Your task to perform on an android device: turn notification dots off Image 0: 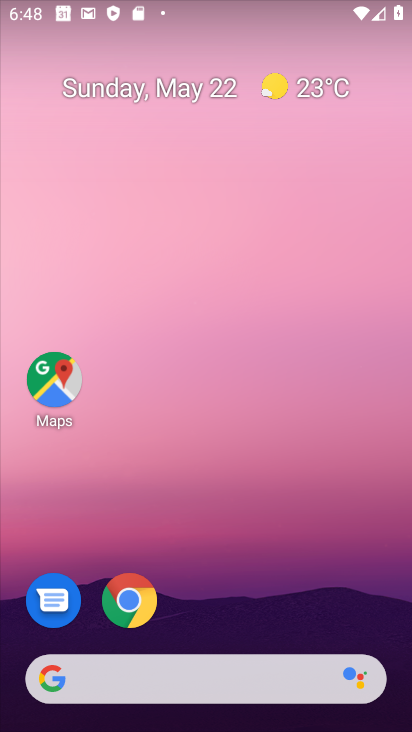
Step 0: drag from (335, 617) to (273, 39)
Your task to perform on an android device: turn notification dots off Image 1: 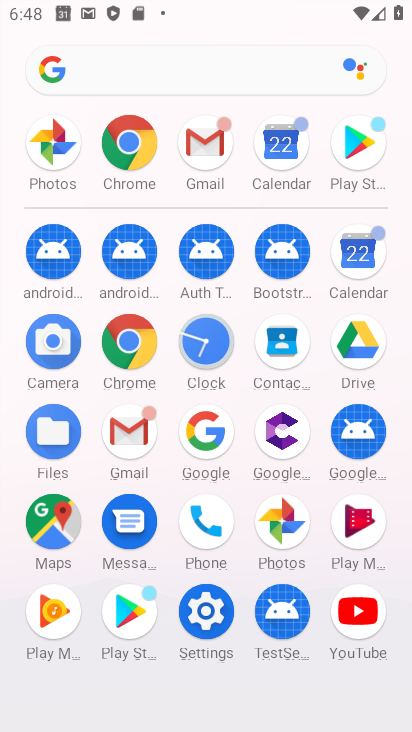
Step 1: click (207, 609)
Your task to perform on an android device: turn notification dots off Image 2: 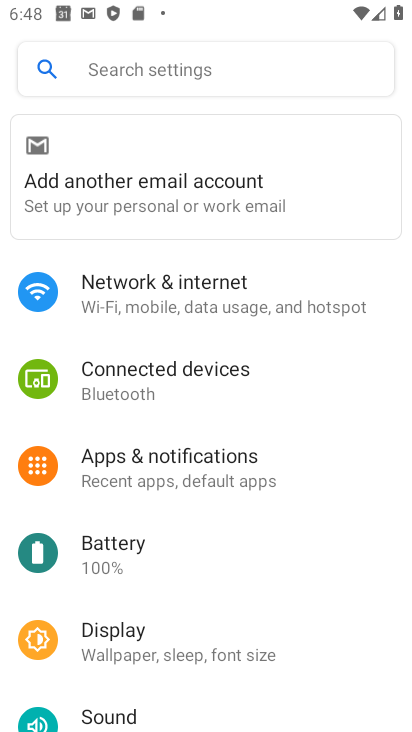
Step 2: drag from (193, 637) to (224, 220)
Your task to perform on an android device: turn notification dots off Image 3: 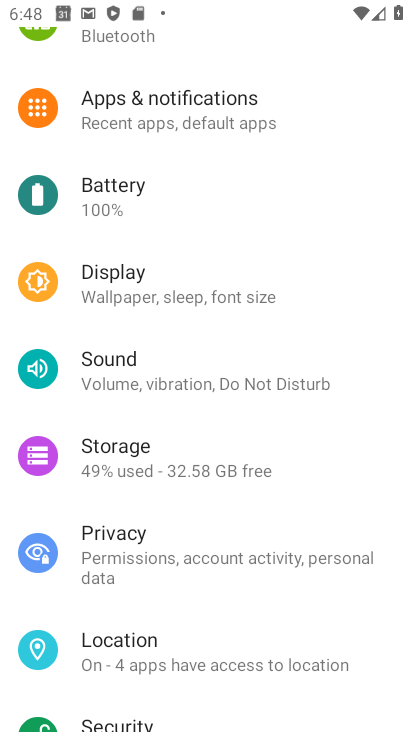
Step 3: click (201, 98)
Your task to perform on an android device: turn notification dots off Image 4: 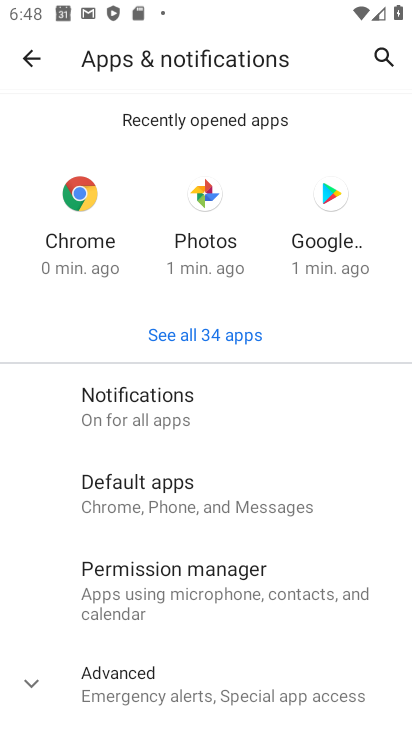
Step 4: click (178, 426)
Your task to perform on an android device: turn notification dots off Image 5: 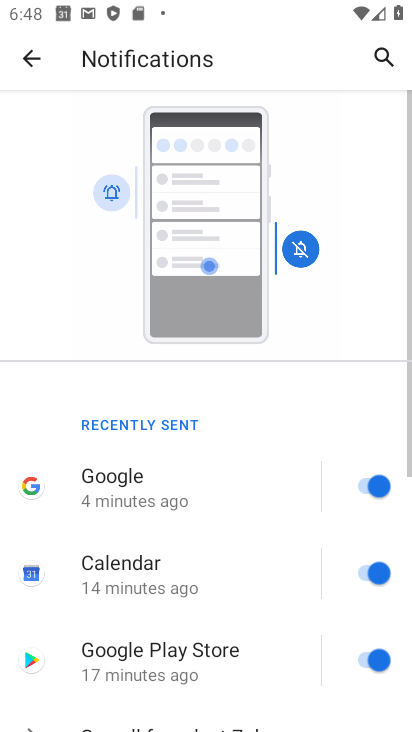
Step 5: drag from (169, 632) to (166, 10)
Your task to perform on an android device: turn notification dots off Image 6: 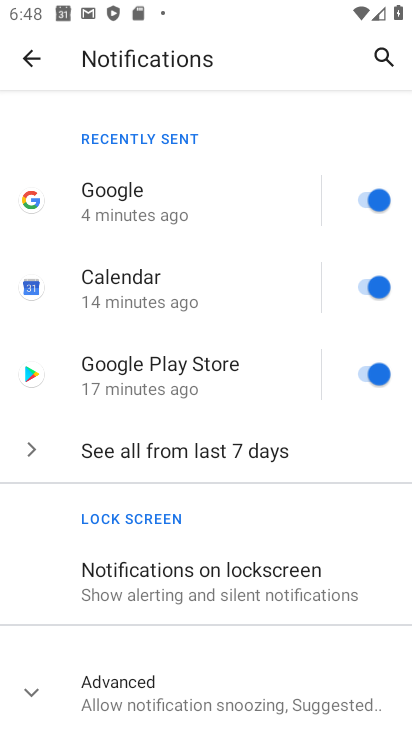
Step 6: click (70, 696)
Your task to perform on an android device: turn notification dots off Image 7: 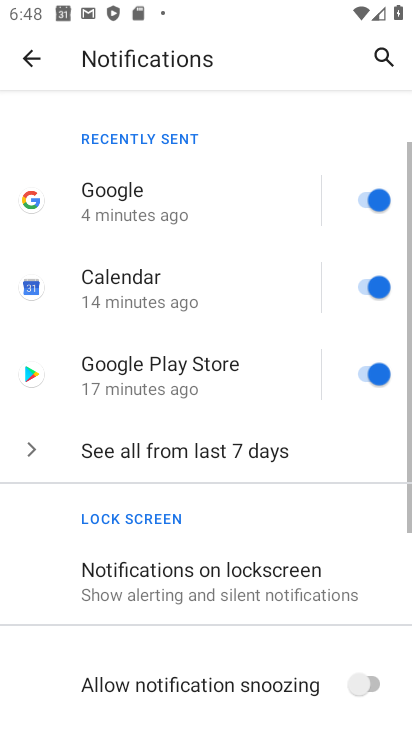
Step 7: drag from (186, 685) to (250, 136)
Your task to perform on an android device: turn notification dots off Image 8: 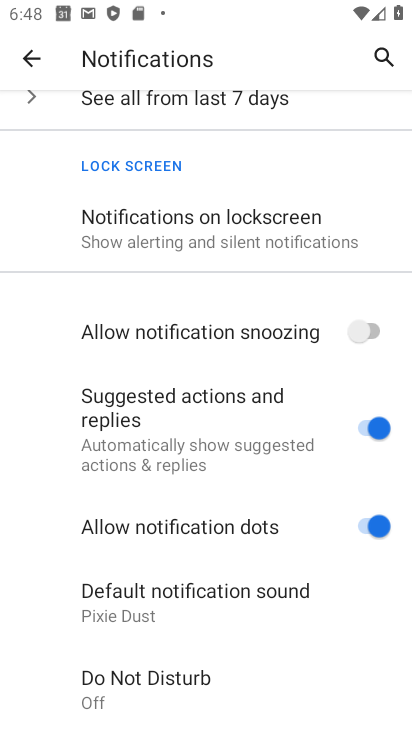
Step 8: click (272, 522)
Your task to perform on an android device: turn notification dots off Image 9: 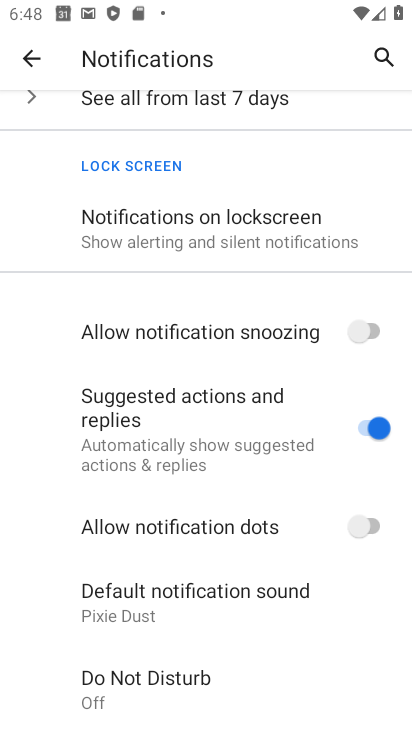
Step 9: task complete